Your task to perform on an android device: turn off sleep mode Image 0: 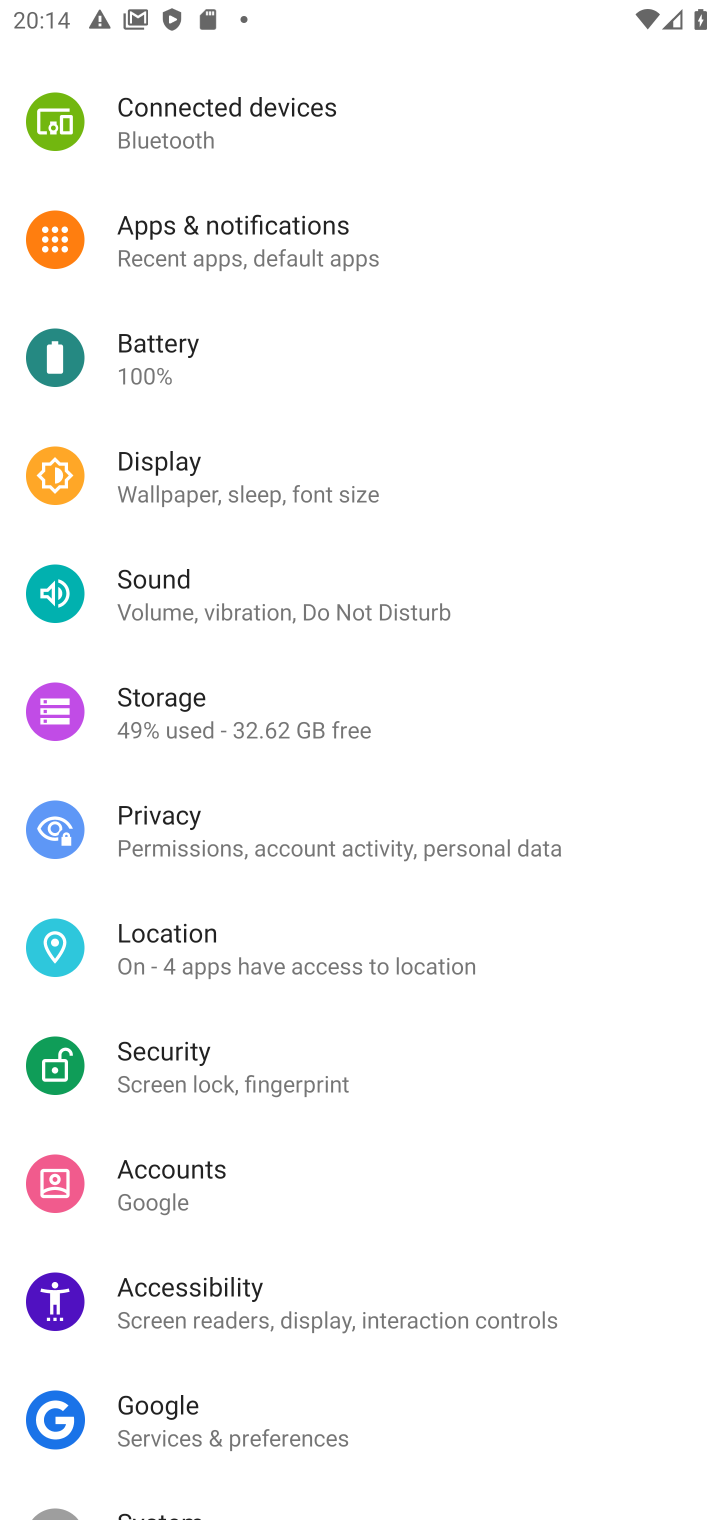
Step 0: drag from (311, 147) to (305, 658)
Your task to perform on an android device: turn off sleep mode Image 1: 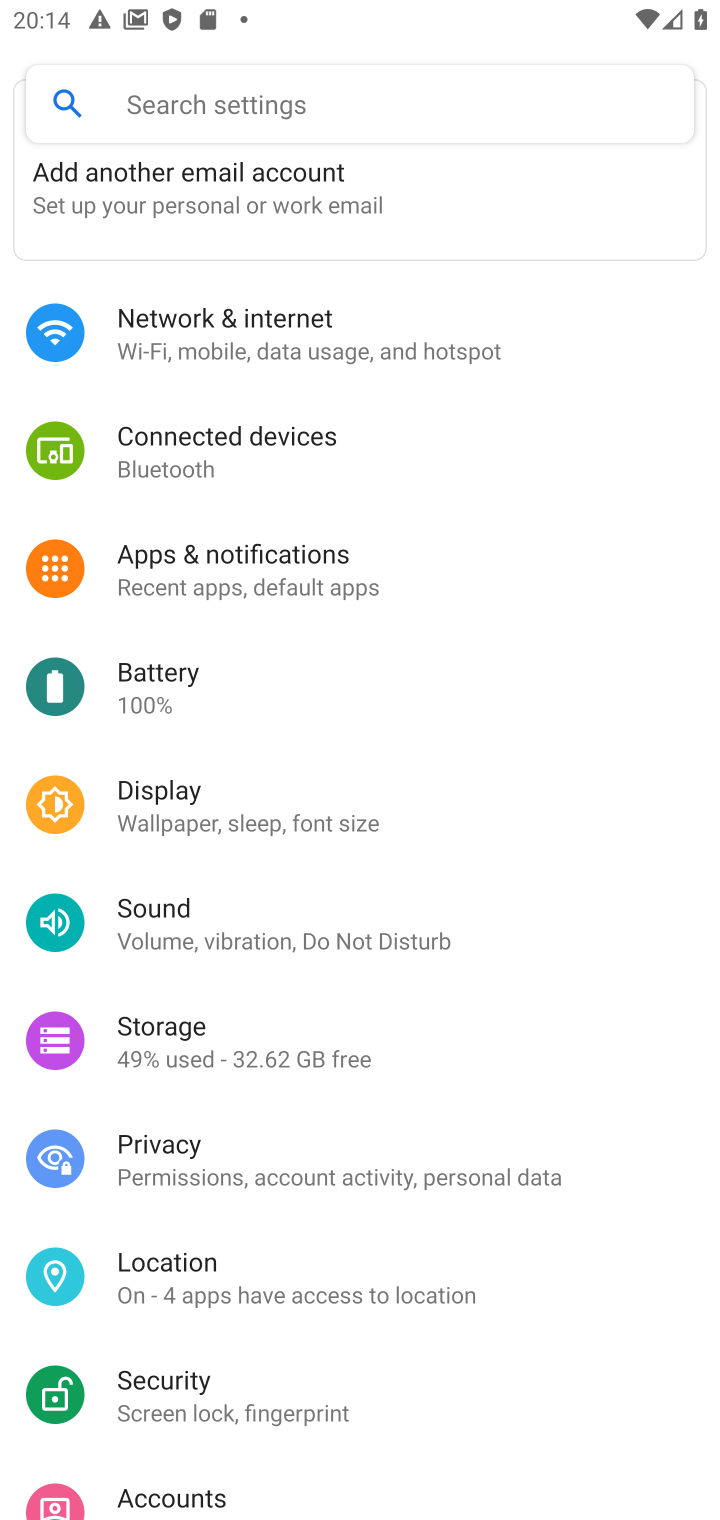
Step 1: click (338, 88)
Your task to perform on an android device: turn off sleep mode Image 2: 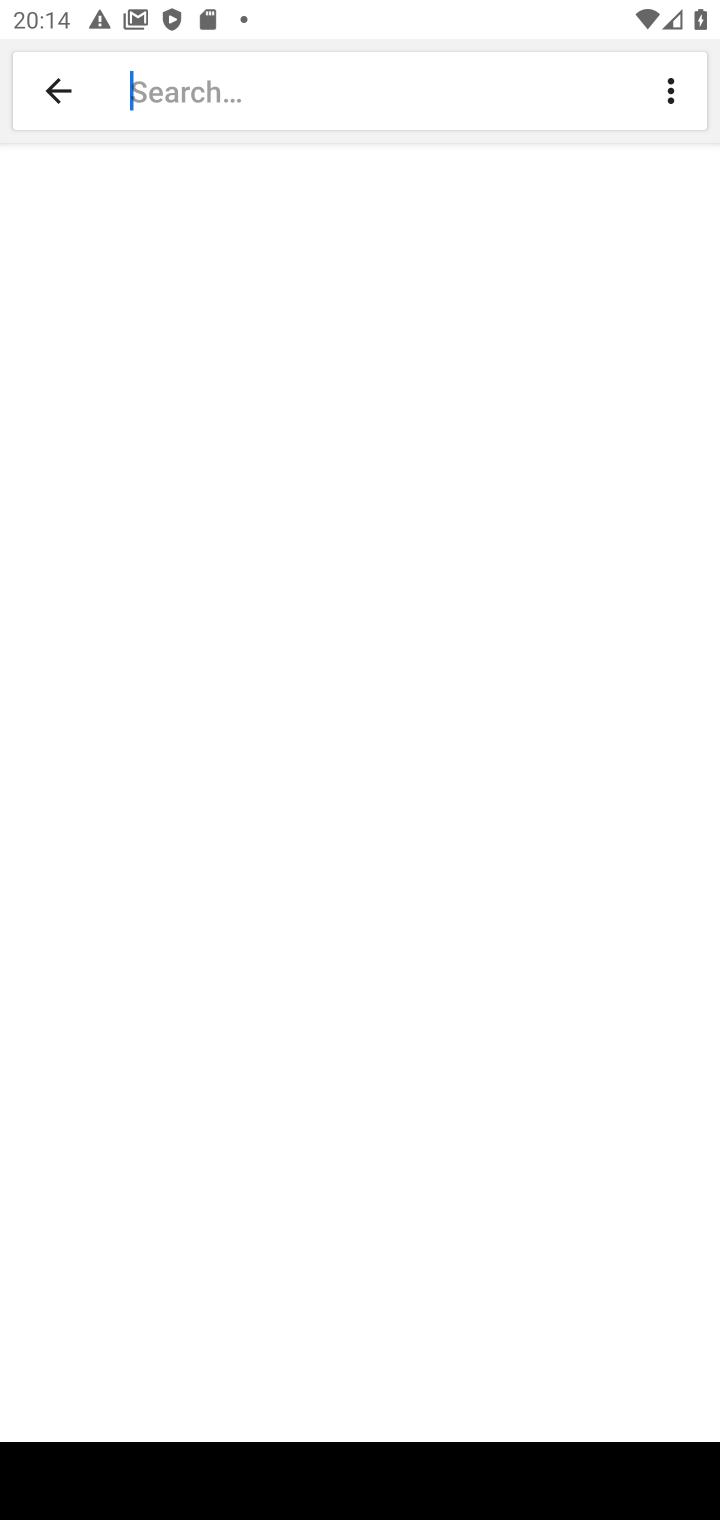
Step 2: type "sleep mode"
Your task to perform on an android device: turn off sleep mode Image 3: 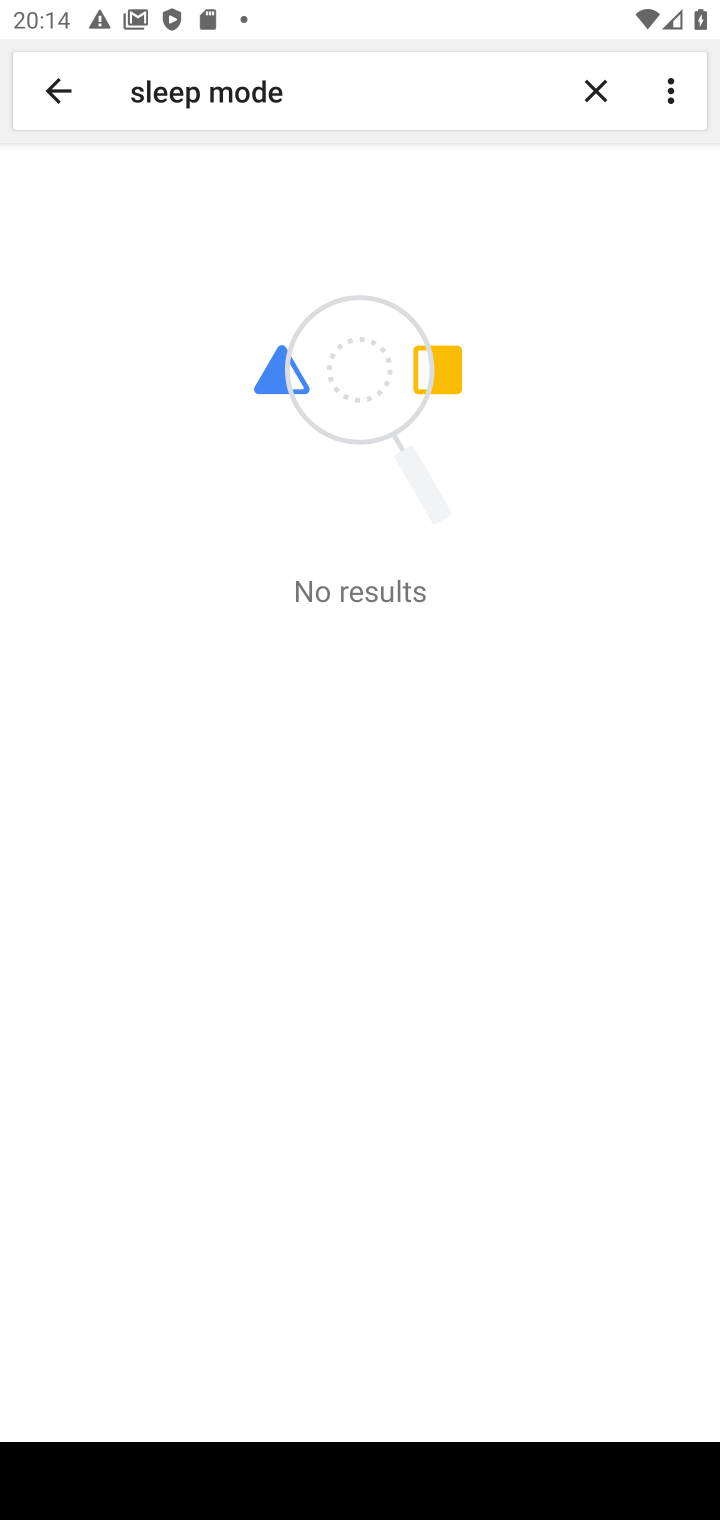
Step 3: click (349, 550)
Your task to perform on an android device: turn off sleep mode Image 4: 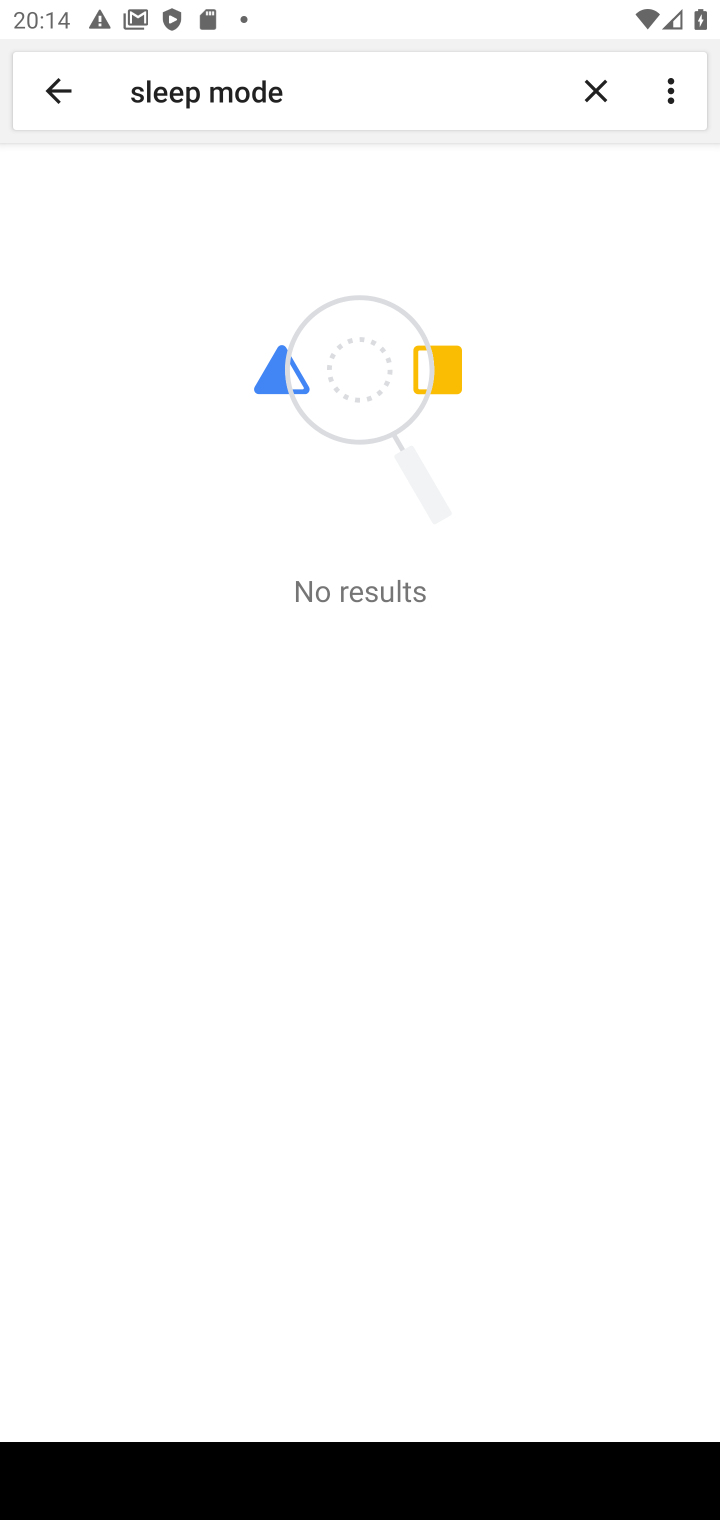
Step 4: task complete